Your task to perform on an android device: change the upload size in google photos Image 0: 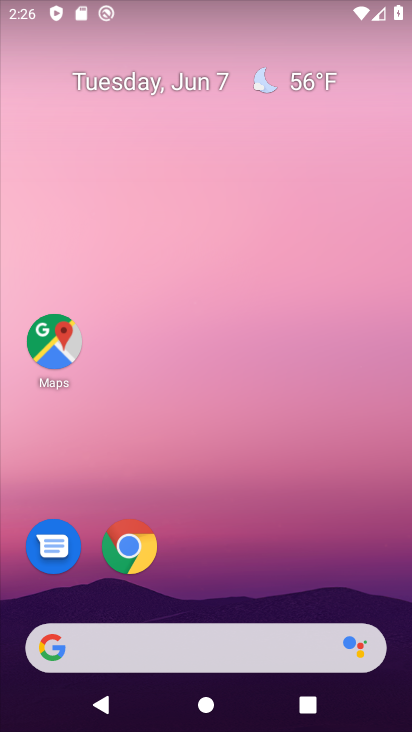
Step 0: drag from (248, 583) to (350, 124)
Your task to perform on an android device: change the upload size in google photos Image 1: 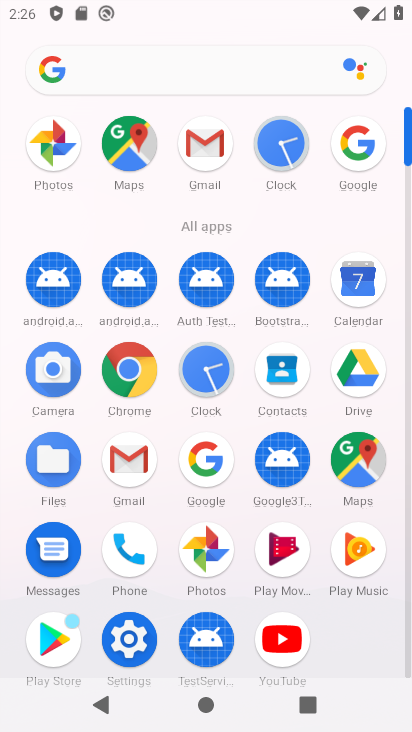
Step 1: click (197, 539)
Your task to perform on an android device: change the upload size in google photos Image 2: 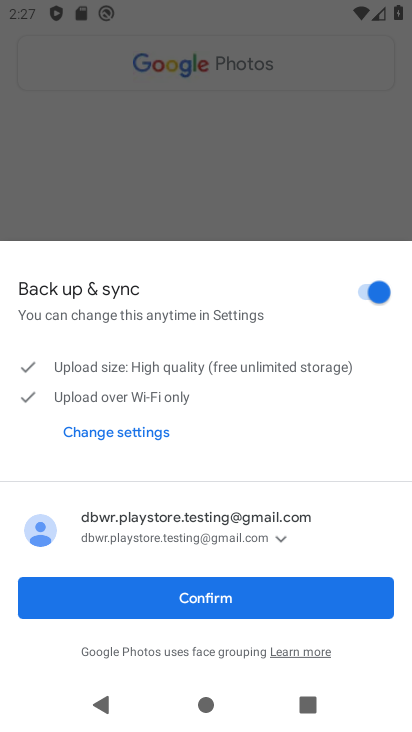
Step 2: click (206, 595)
Your task to perform on an android device: change the upload size in google photos Image 3: 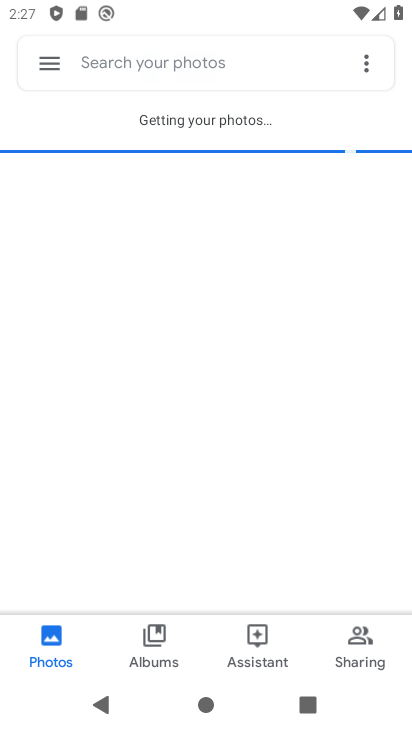
Step 3: click (36, 64)
Your task to perform on an android device: change the upload size in google photos Image 4: 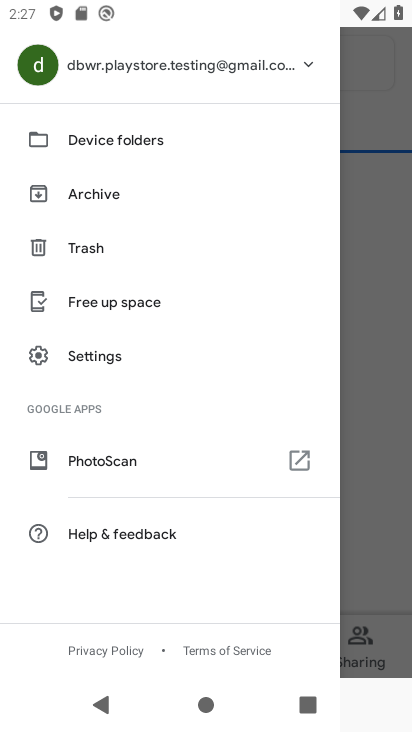
Step 4: click (97, 337)
Your task to perform on an android device: change the upload size in google photos Image 5: 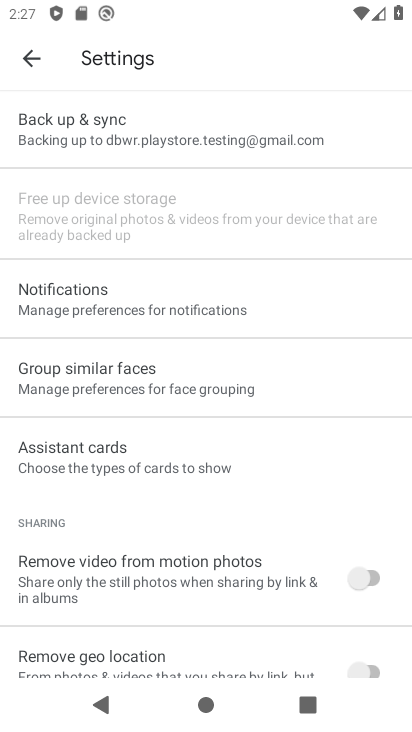
Step 5: click (184, 144)
Your task to perform on an android device: change the upload size in google photos Image 6: 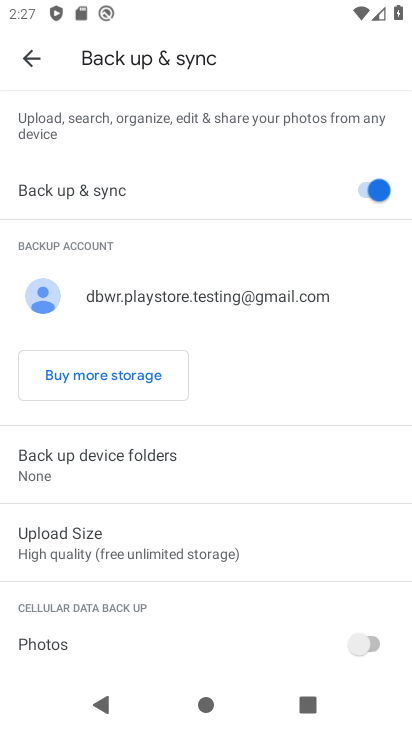
Step 6: click (66, 544)
Your task to perform on an android device: change the upload size in google photos Image 7: 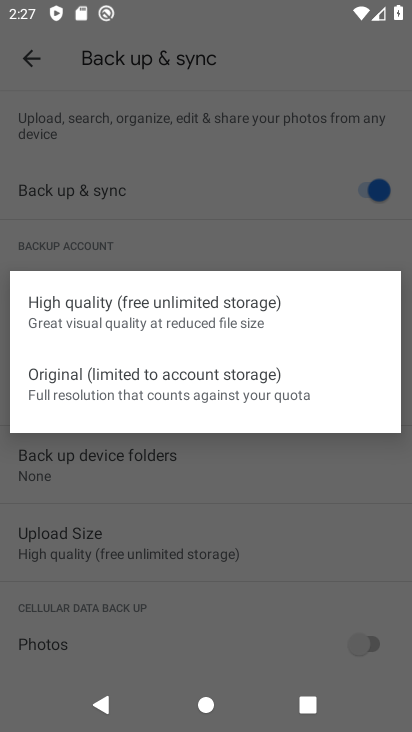
Step 7: click (164, 379)
Your task to perform on an android device: change the upload size in google photos Image 8: 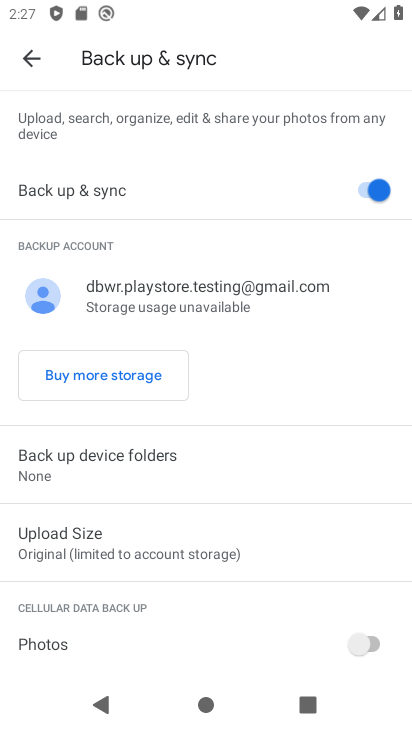
Step 8: task complete